Your task to perform on an android device: Check the weather Image 0: 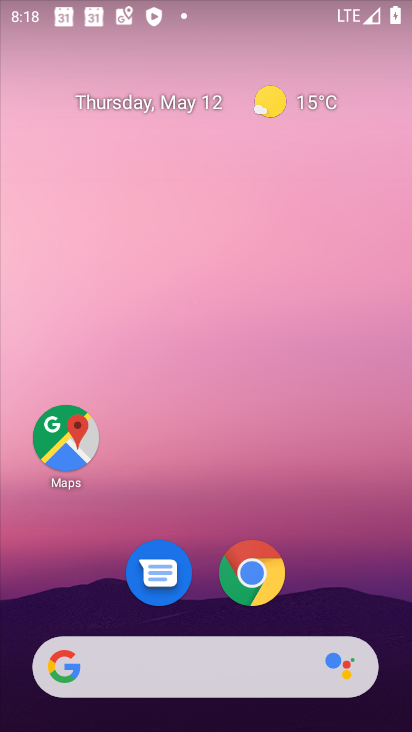
Step 0: click (215, 656)
Your task to perform on an android device: Check the weather Image 1: 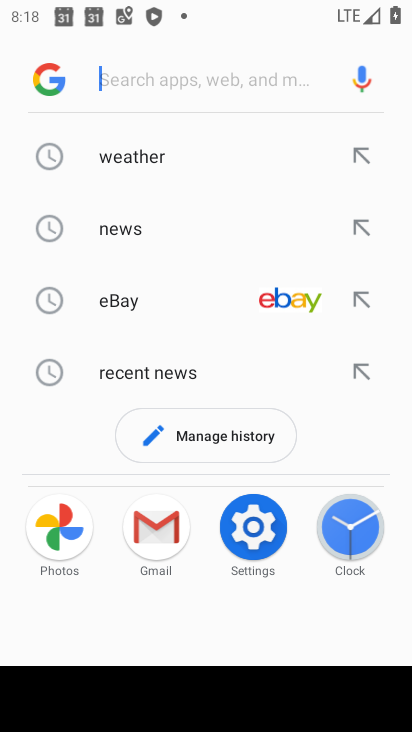
Step 1: click (136, 149)
Your task to perform on an android device: Check the weather Image 2: 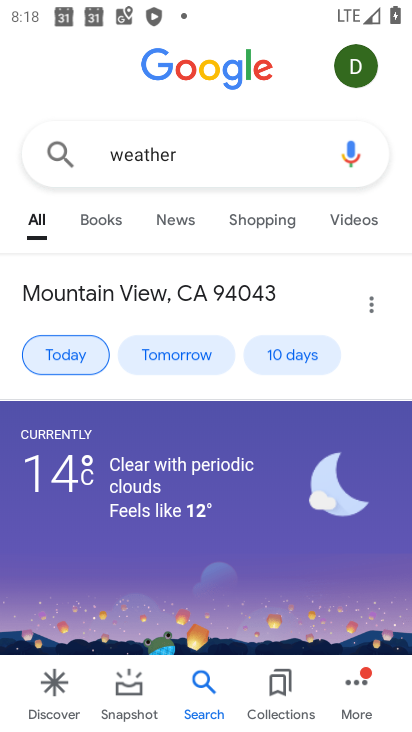
Step 2: task complete